Your task to perform on an android device: Search for Mexican restaurants on Maps Image 0: 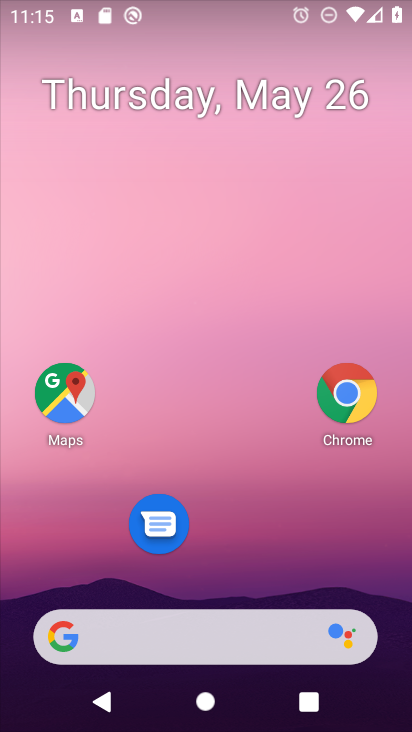
Step 0: click (68, 399)
Your task to perform on an android device: Search for Mexican restaurants on Maps Image 1: 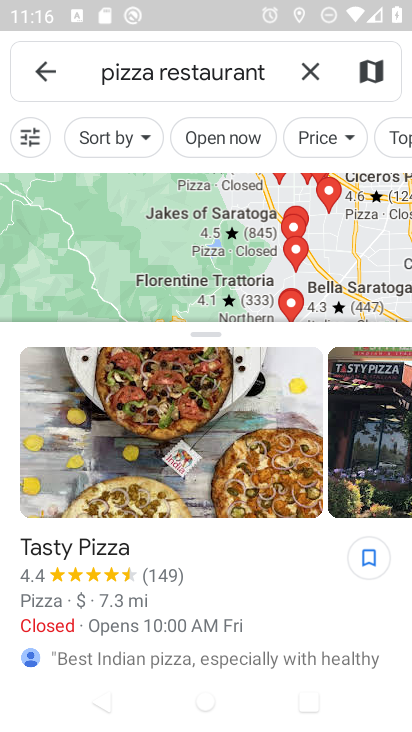
Step 1: click (311, 69)
Your task to perform on an android device: Search for Mexican restaurants on Maps Image 2: 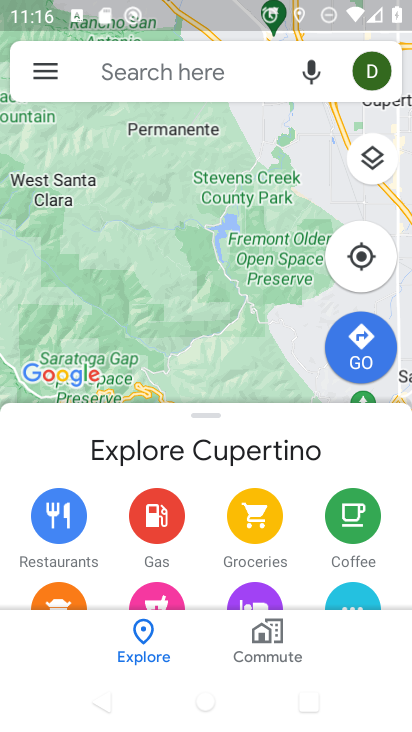
Step 2: click (192, 69)
Your task to perform on an android device: Search for Mexican restaurants on Maps Image 3: 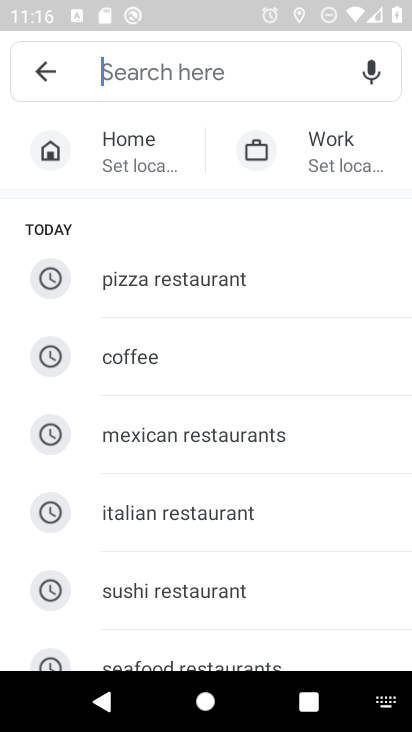
Step 3: click (250, 424)
Your task to perform on an android device: Search for Mexican restaurants on Maps Image 4: 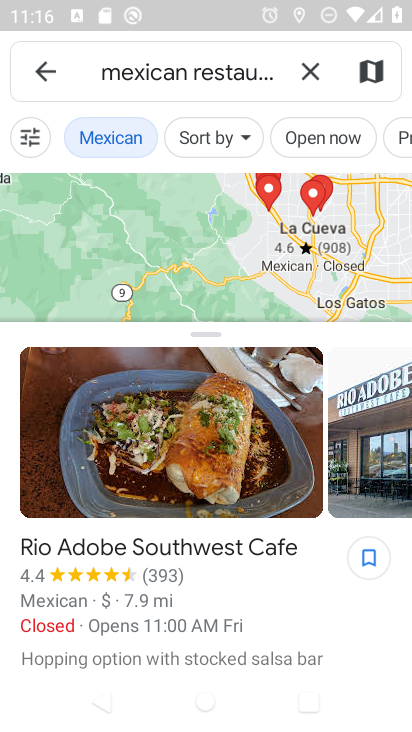
Step 4: task complete